Your task to perform on an android device: Open Yahoo.com Image 0: 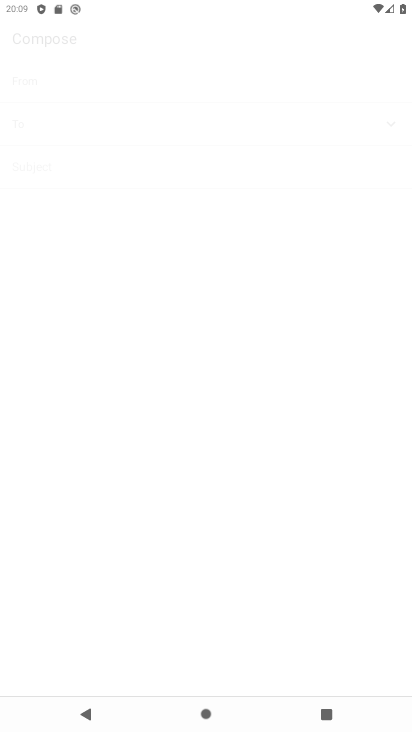
Step 0: drag from (216, 550) to (406, 203)
Your task to perform on an android device: Open Yahoo.com Image 1: 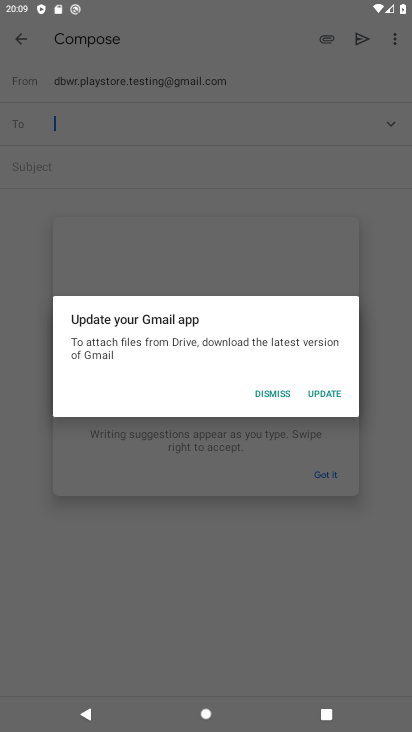
Step 1: press home button
Your task to perform on an android device: Open Yahoo.com Image 2: 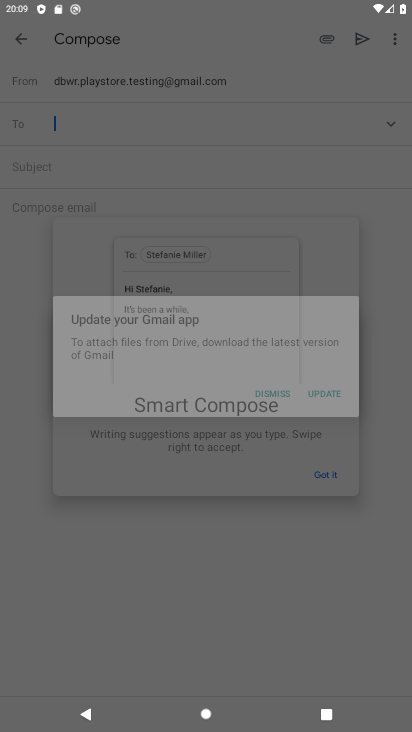
Step 2: drag from (406, 203) to (402, 485)
Your task to perform on an android device: Open Yahoo.com Image 3: 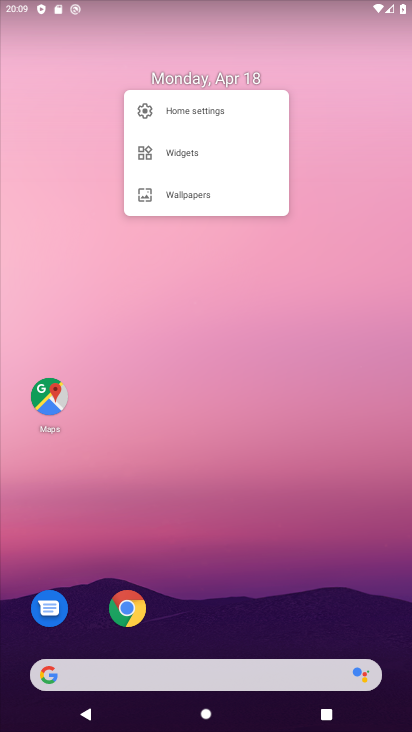
Step 3: drag from (237, 587) to (277, 308)
Your task to perform on an android device: Open Yahoo.com Image 4: 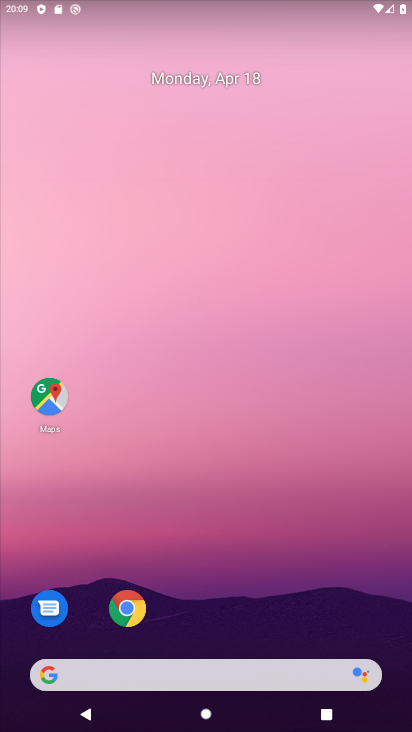
Step 4: click (124, 610)
Your task to perform on an android device: Open Yahoo.com Image 5: 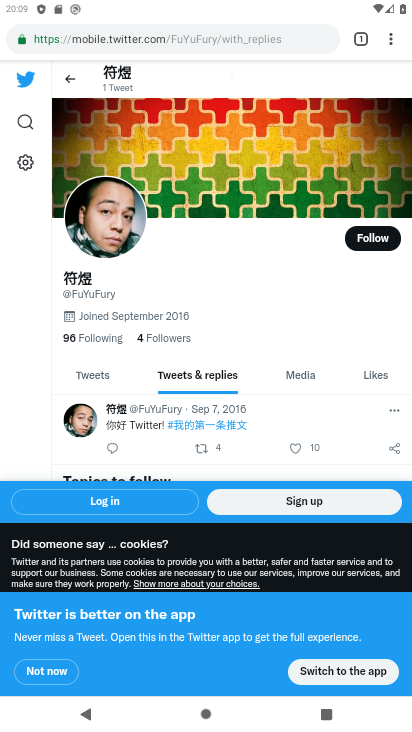
Step 5: press back button
Your task to perform on an android device: Open Yahoo.com Image 6: 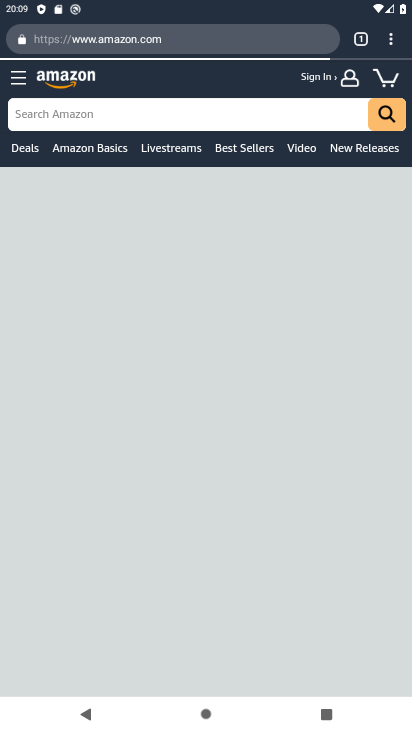
Step 6: press back button
Your task to perform on an android device: Open Yahoo.com Image 7: 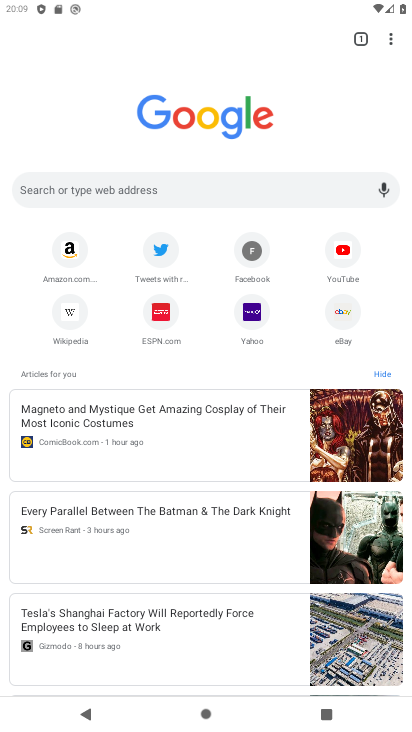
Step 7: click (253, 313)
Your task to perform on an android device: Open Yahoo.com Image 8: 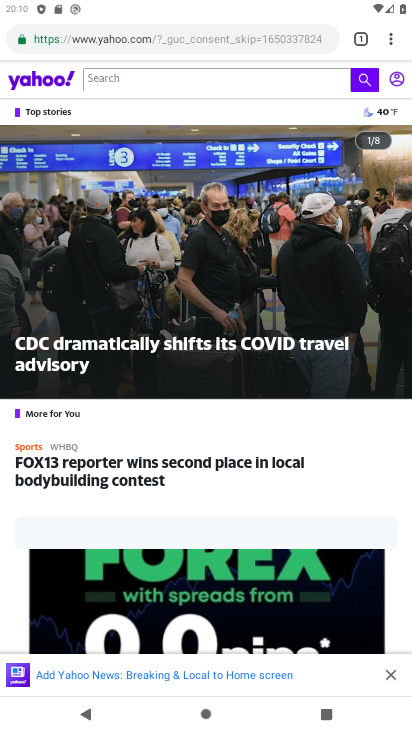
Step 8: task complete